Your task to perform on an android device: turn on airplane mode Image 0: 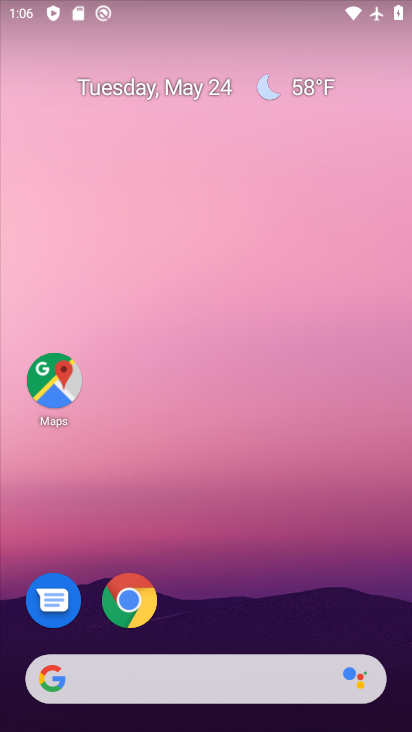
Step 0: drag from (259, 557) to (146, 0)
Your task to perform on an android device: turn on airplane mode Image 1: 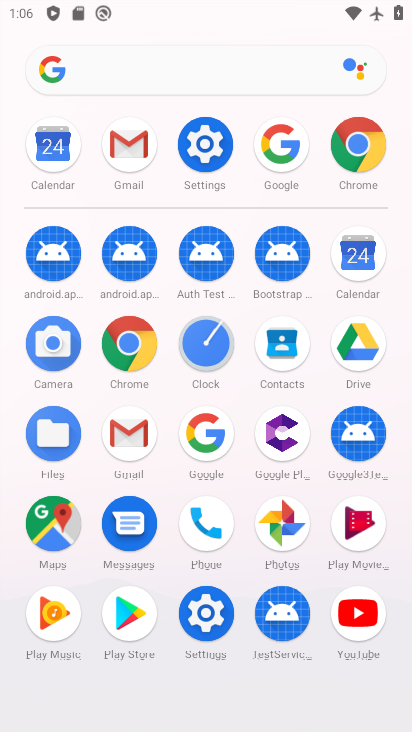
Step 1: click (209, 150)
Your task to perform on an android device: turn on airplane mode Image 2: 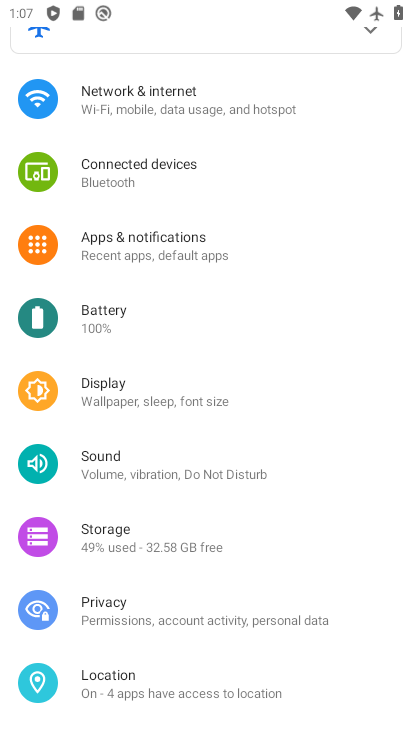
Step 2: click (196, 111)
Your task to perform on an android device: turn on airplane mode Image 3: 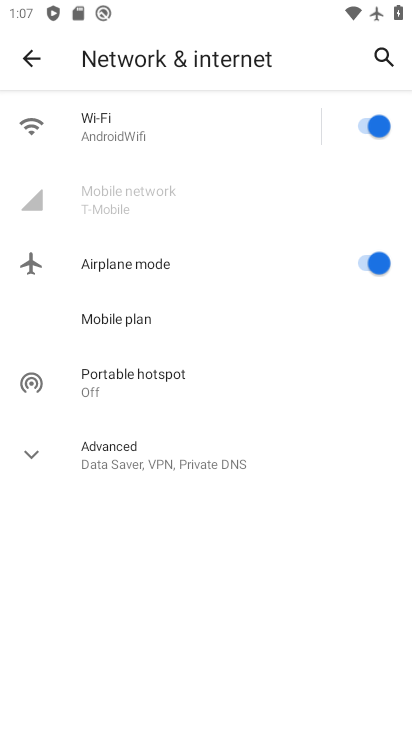
Step 3: task complete